Your task to perform on an android device: Open Google Maps and go to "Timeline" Image 0: 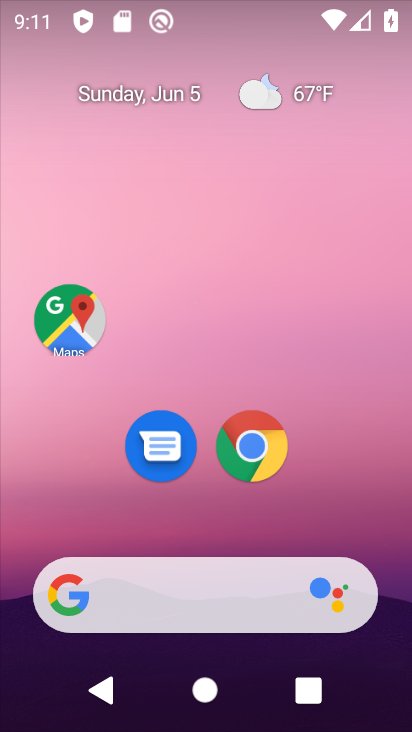
Step 0: click (65, 335)
Your task to perform on an android device: Open Google Maps and go to "Timeline" Image 1: 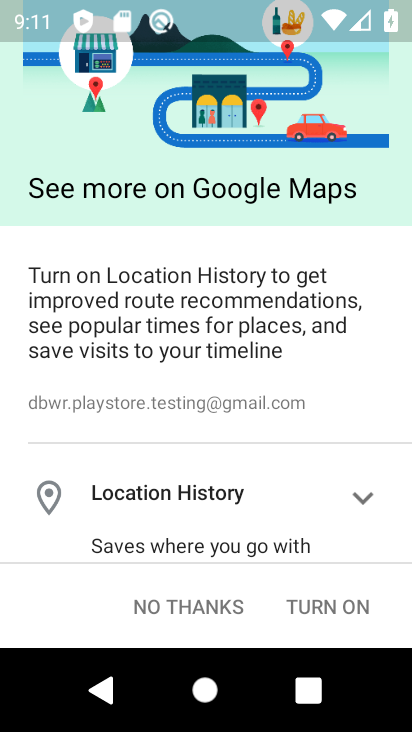
Step 1: drag from (68, 581) to (158, 241)
Your task to perform on an android device: Open Google Maps and go to "Timeline" Image 2: 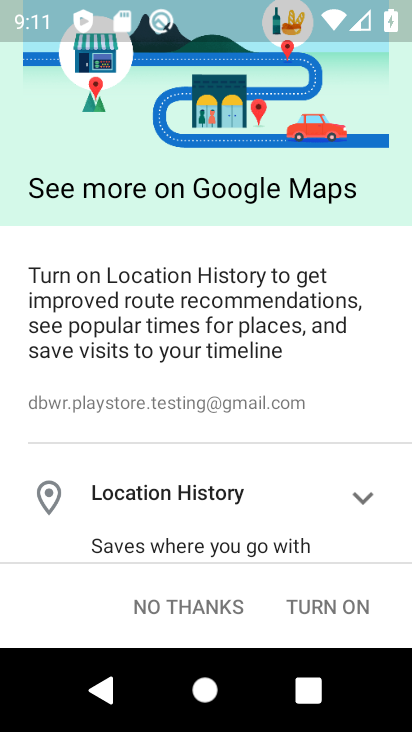
Step 2: click (308, 607)
Your task to perform on an android device: Open Google Maps and go to "Timeline" Image 3: 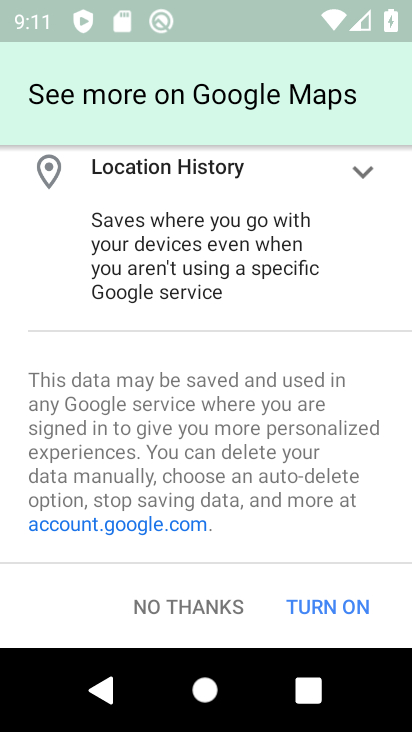
Step 3: click (308, 607)
Your task to perform on an android device: Open Google Maps and go to "Timeline" Image 4: 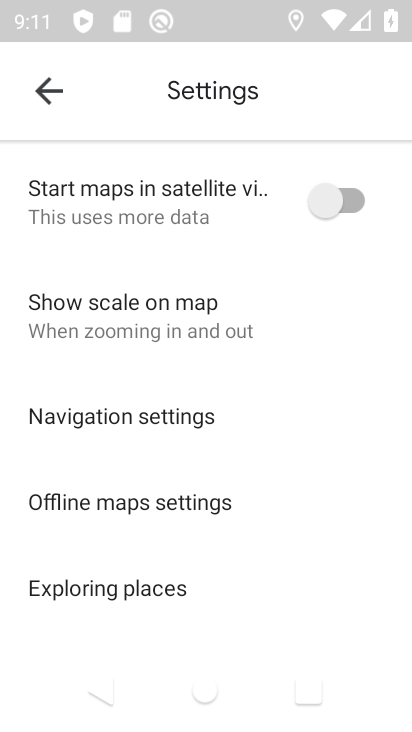
Step 4: press home button
Your task to perform on an android device: Open Google Maps and go to "Timeline" Image 5: 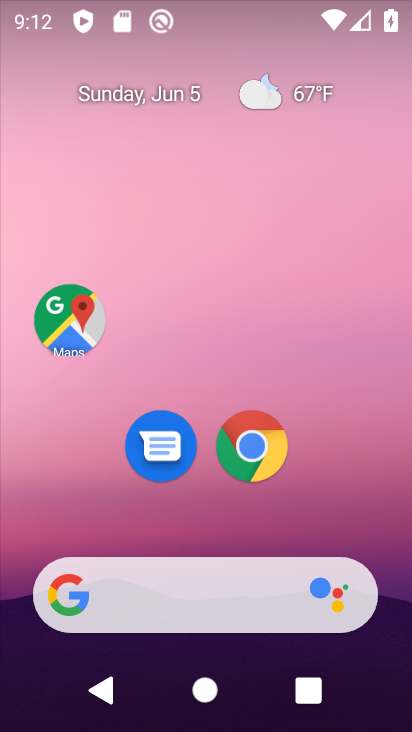
Step 5: click (78, 324)
Your task to perform on an android device: Open Google Maps and go to "Timeline" Image 6: 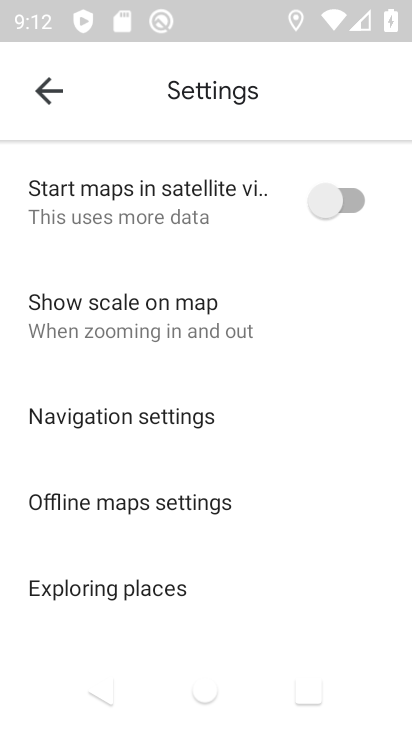
Step 6: click (57, 93)
Your task to perform on an android device: Open Google Maps and go to "Timeline" Image 7: 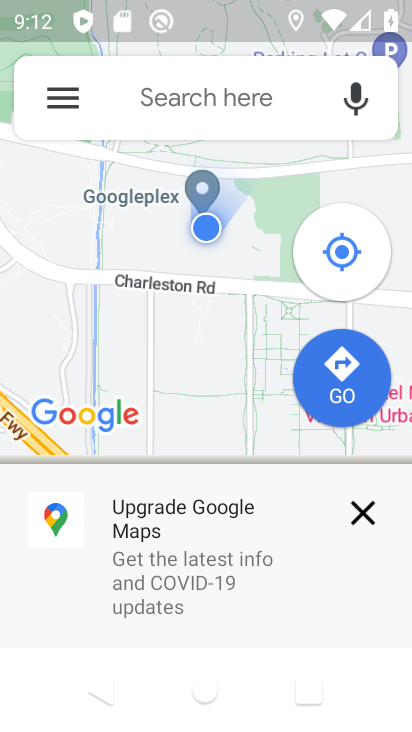
Step 7: click (76, 111)
Your task to perform on an android device: Open Google Maps and go to "Timeline" Image 8: 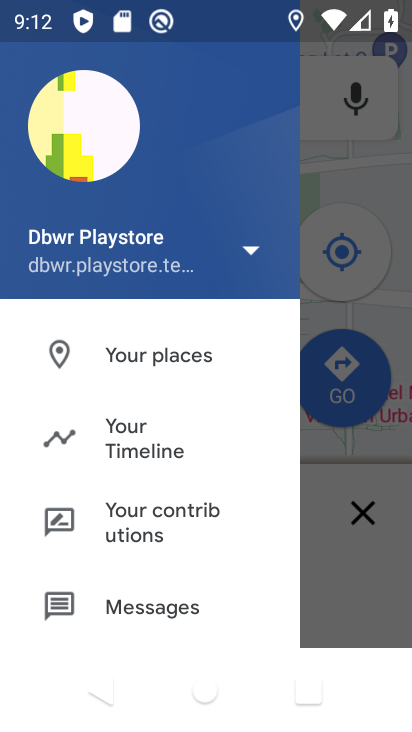
Step 8: click (146, 428)
Your task to perform on an android device: Open Google Maps and go to "Timeline" Image 9: 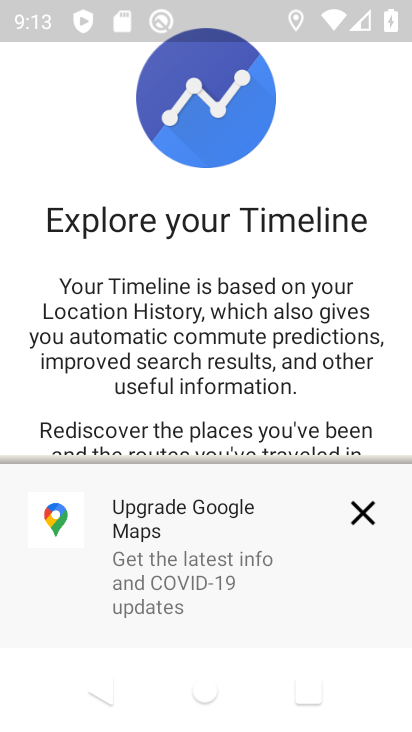
Step 9: click (364, 517)
Your task to perform on an android device: Open Google Maps and go to "Timeline" Image 10: 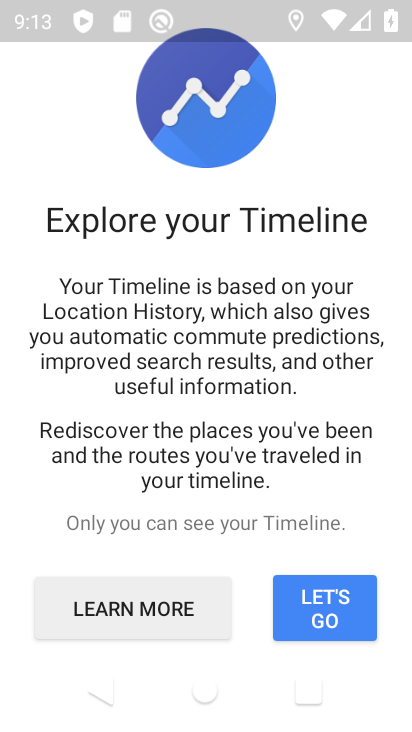
Step 10: drag from (232, 544) to (249, 274)
Your task to perform on an android device: Open Google Maps and go to "Timeline" Image 11: 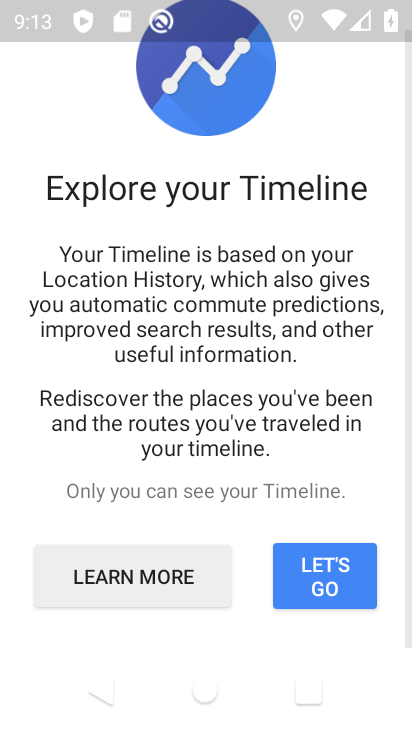
Step 11: click (321, 573)
Your task to perform on an android device: Open Google Maps and go to "Timeline" Image 12: 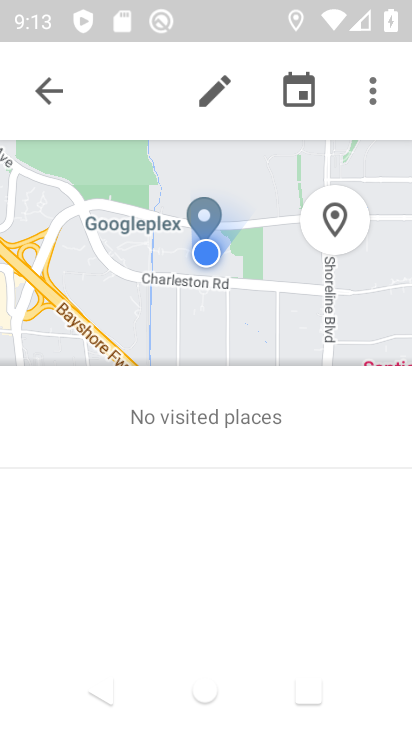
Step 12: task complete